Your task to perform on an android device: toggle sleep mode Image 0: 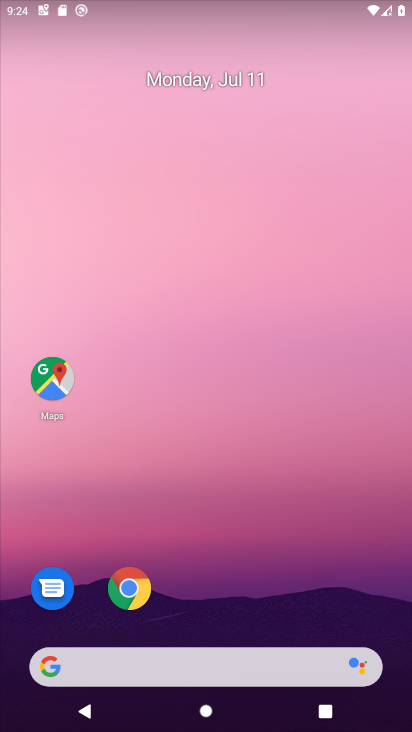
Step 0: drag from (232, 635) to (234, 161)
Your task to perform on an android device: toggle sleep mode Image 1: 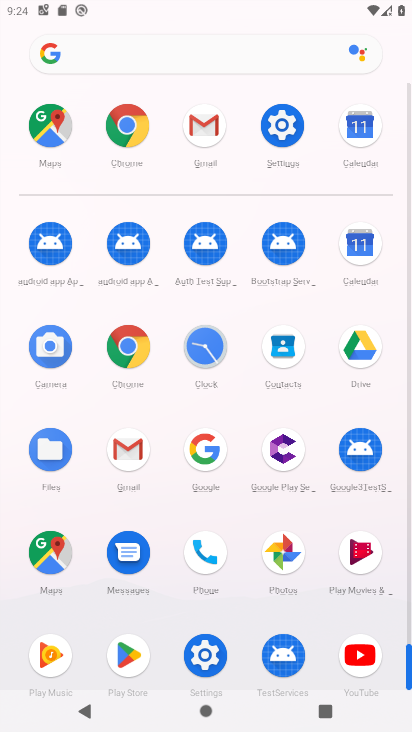
Step 1: click (289, 123)
Your task to perform on an android device: toggle sleep mode Image 2: 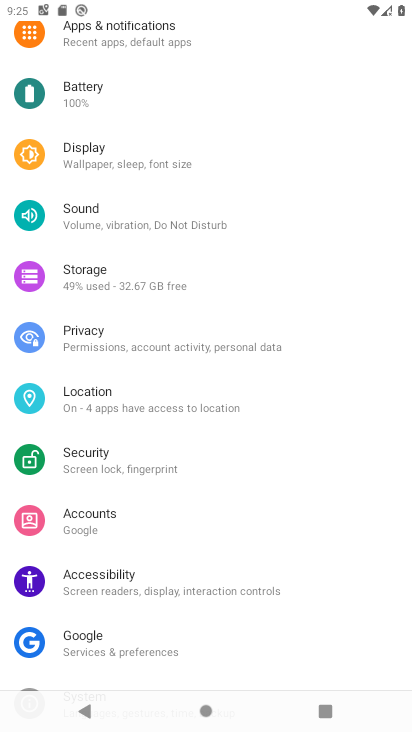
Step 2: task complete